Your task to perform on an android device: How do I get to the nearest Subway? Image 0: 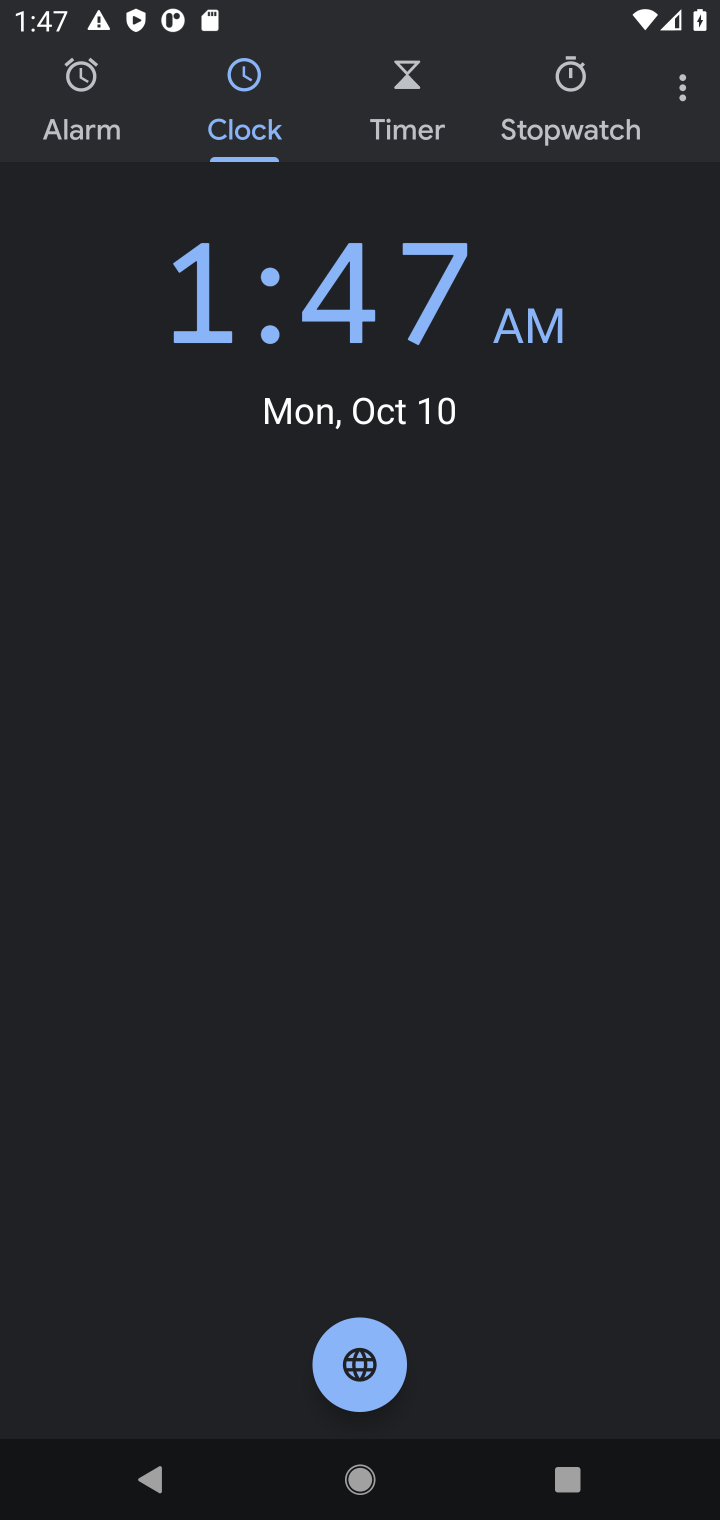
Step 0: press back button
Your task to perform on an android device: How do I get to the nearest Subway? Image 1: 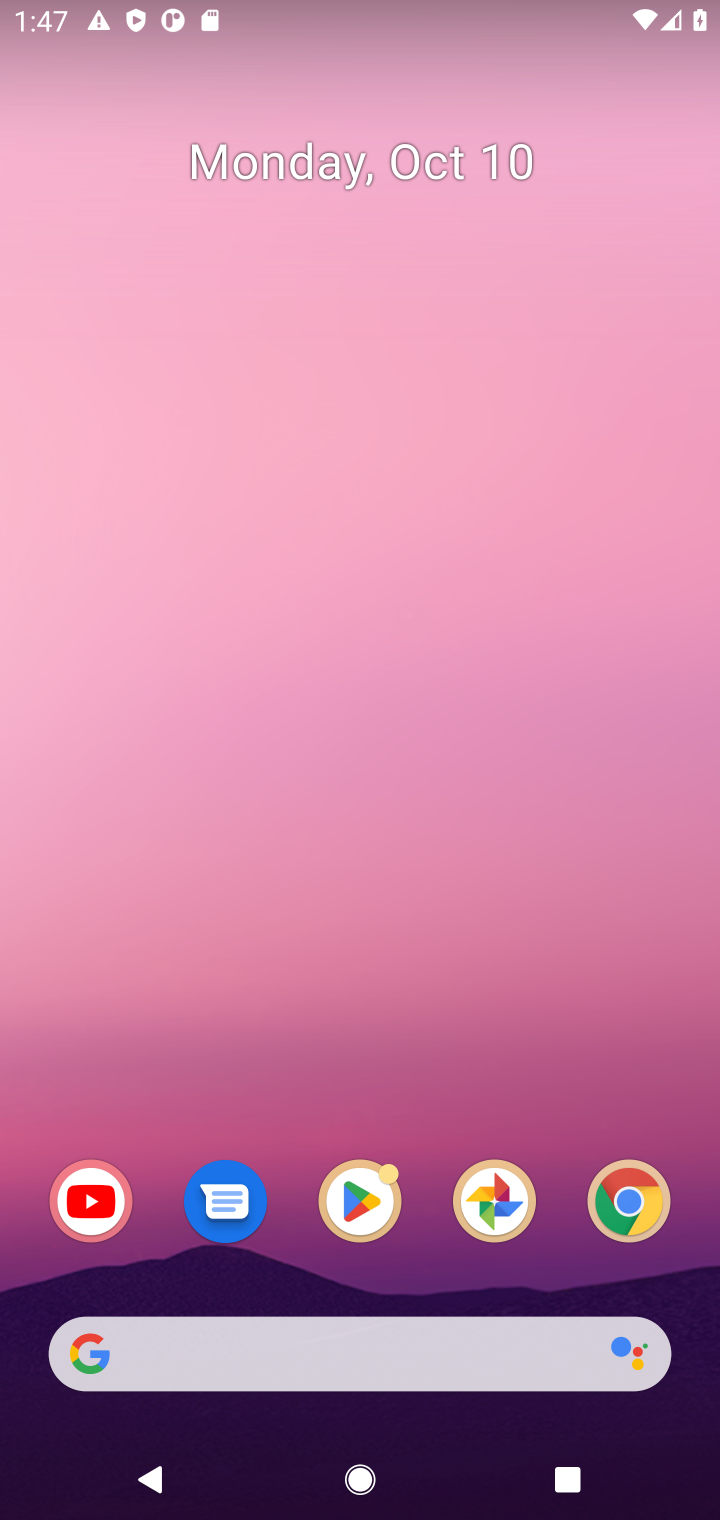
Step 1: click (445, 1347)
Your task to perform on an android device: How do I get to the nearest Subway? Image 2: 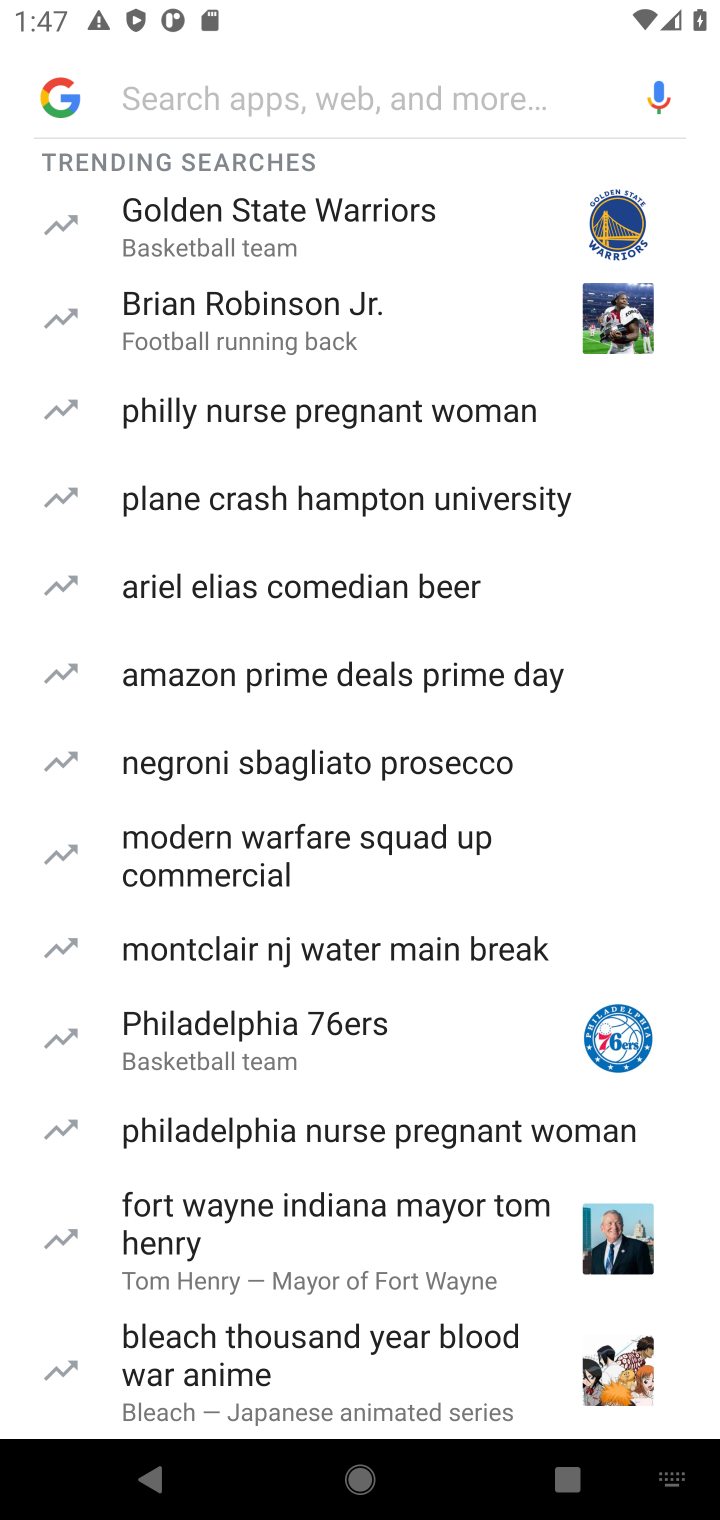
Step 2: type "nearest Subway"
Your task to perform on an android device: How do I get to the nearest Subway? Image 3: 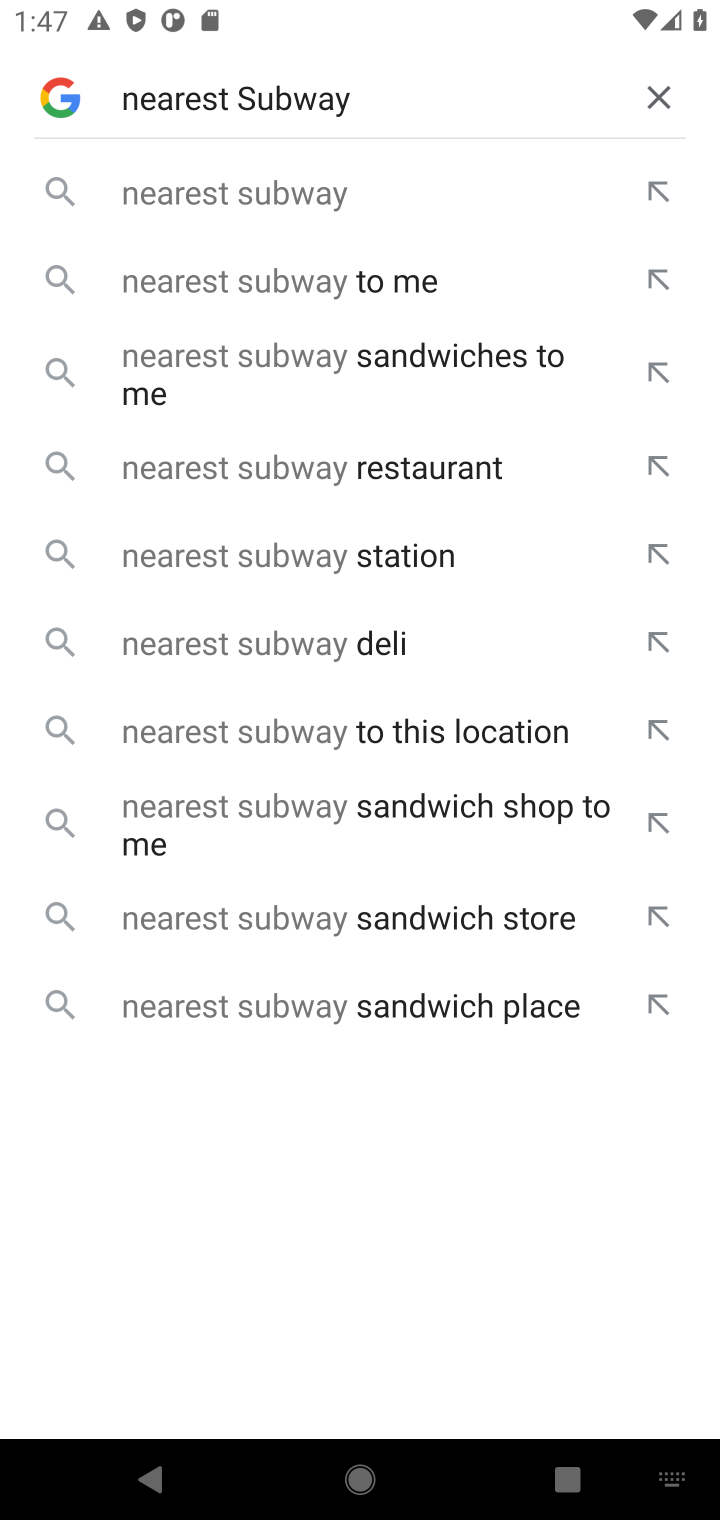
Step 3: press enter
Your task to perform on an android device: How do I get to the nearest Subway? Image 4: 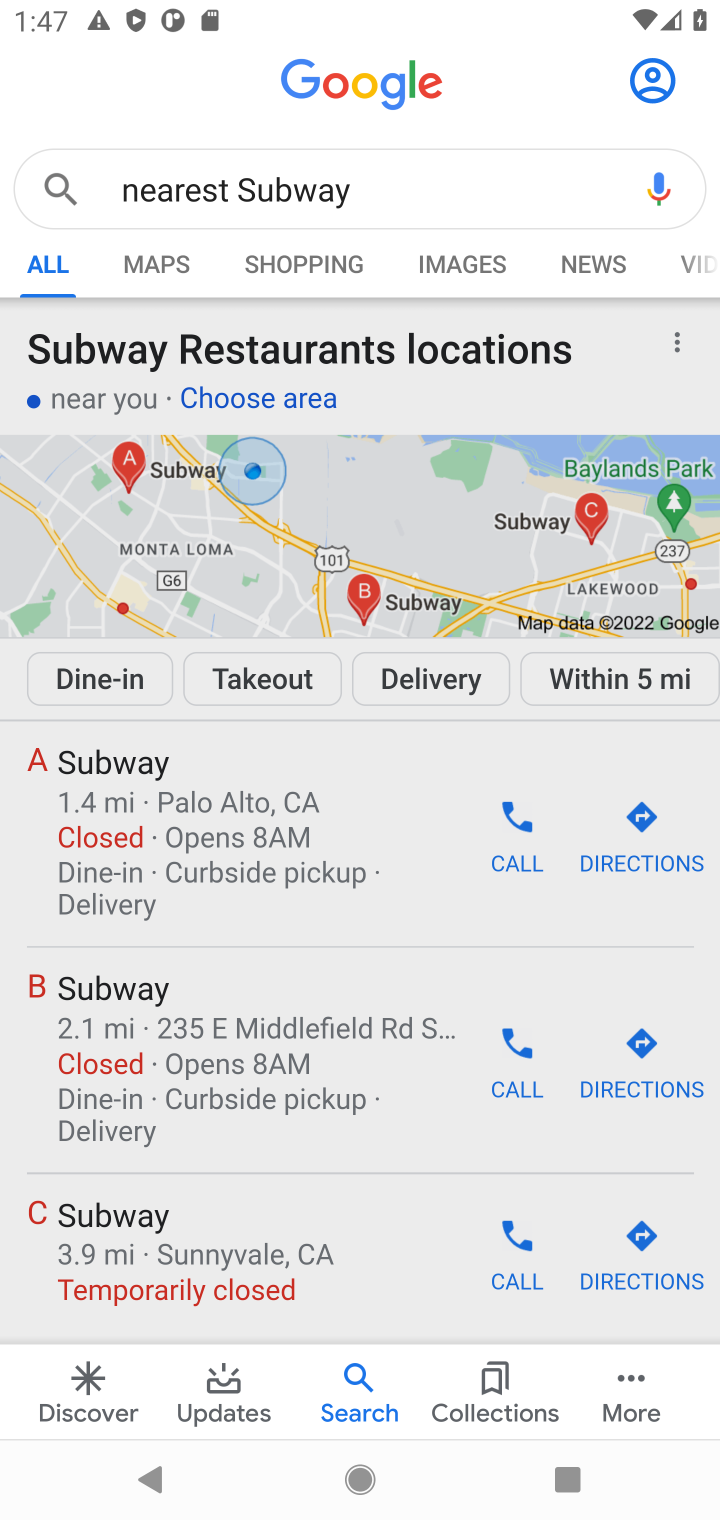
Step 4: task complete